Your task to perform on an android device: What is the news today? Image 0: 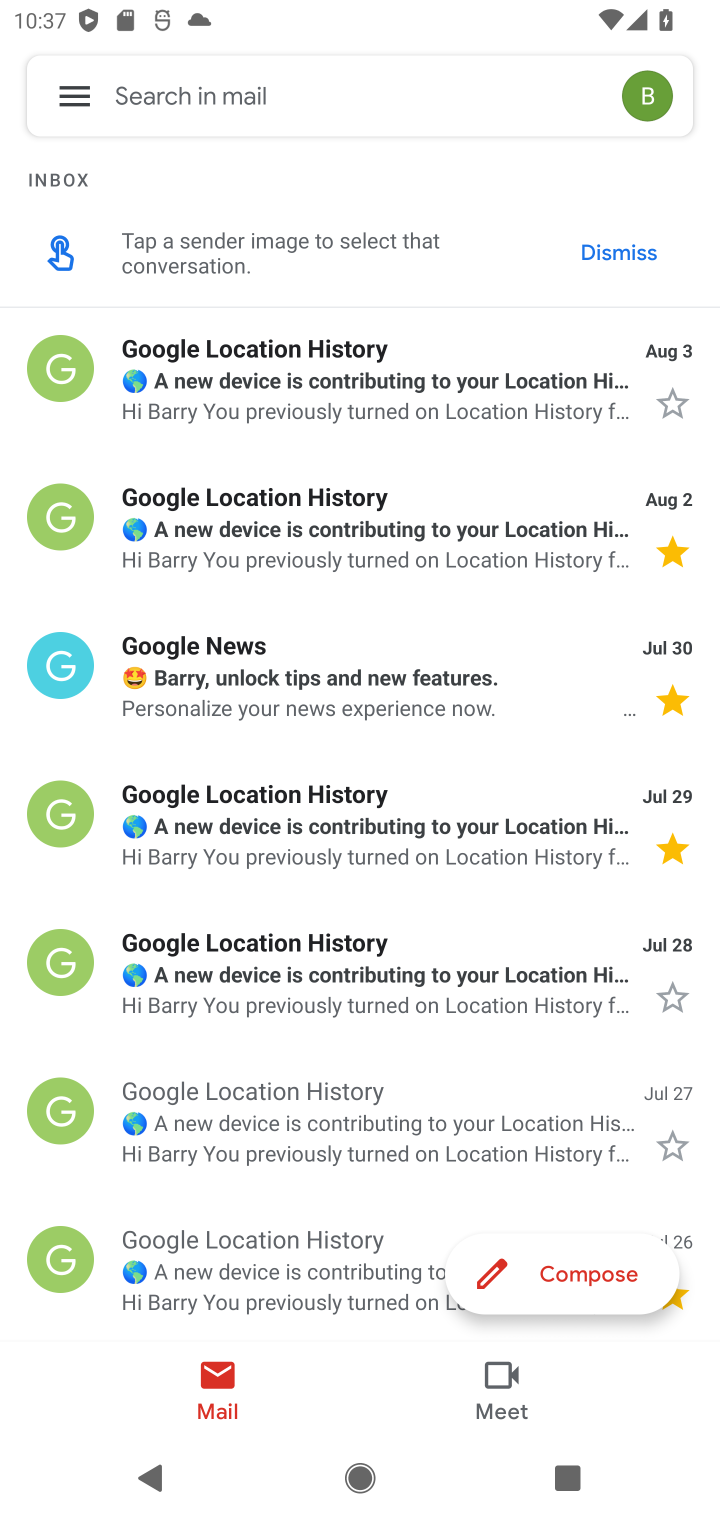
Step 0: press home button
Your task to perform on an android device: What is the news today? Image 1: 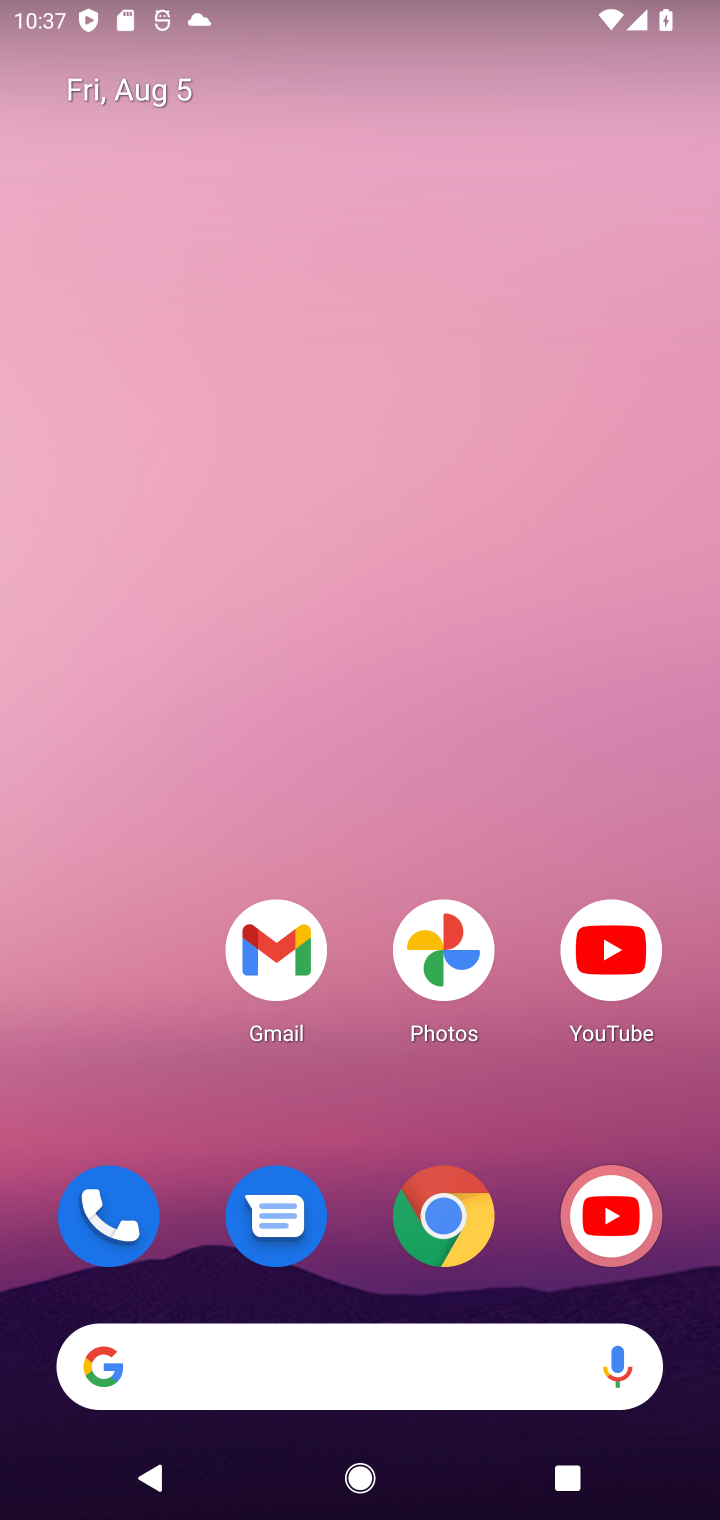
Step 1: drag from (370, 1359) to (329, 171)
Your task to perform on an android device: What is the news today? Image 2: 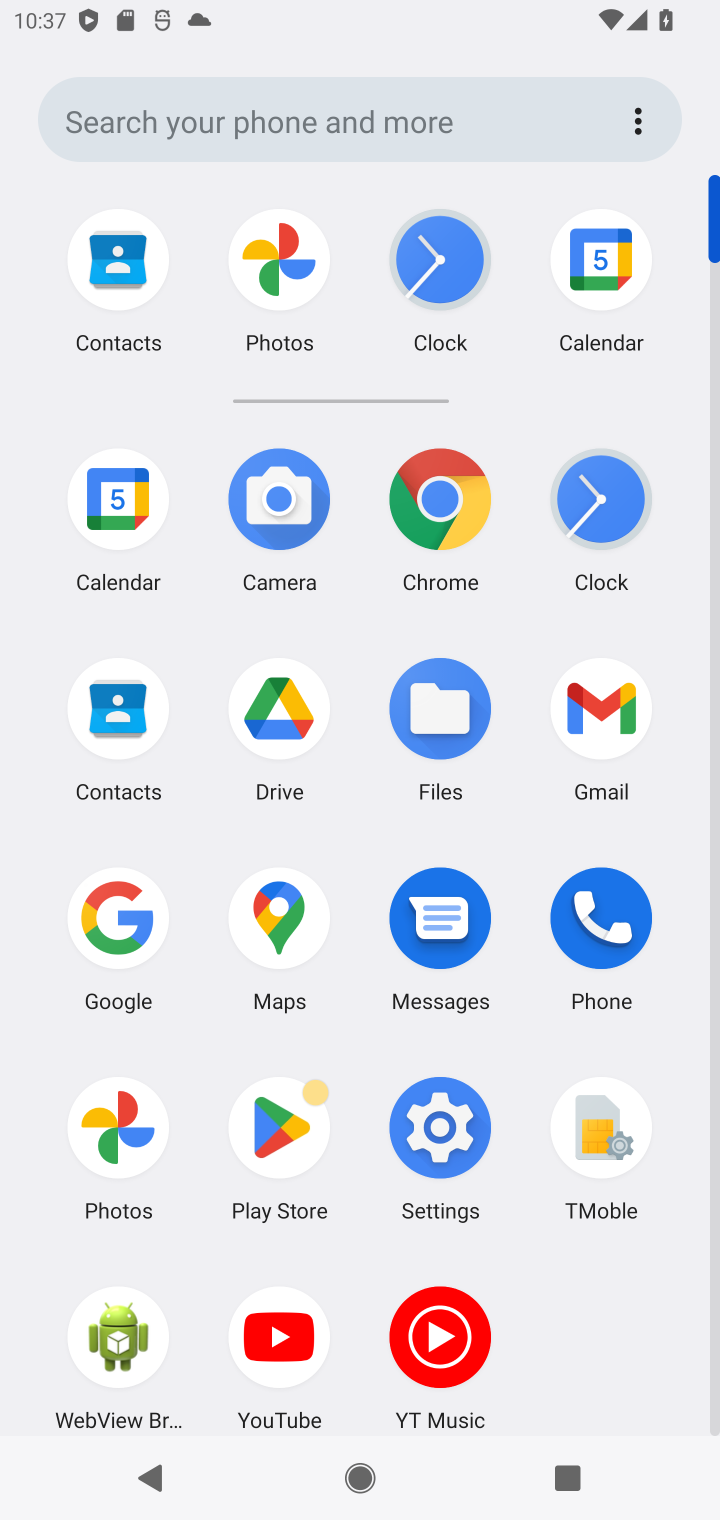
Step 2: click (436, 522)
Your task to perform on an android device: What is the news today? Image 3: 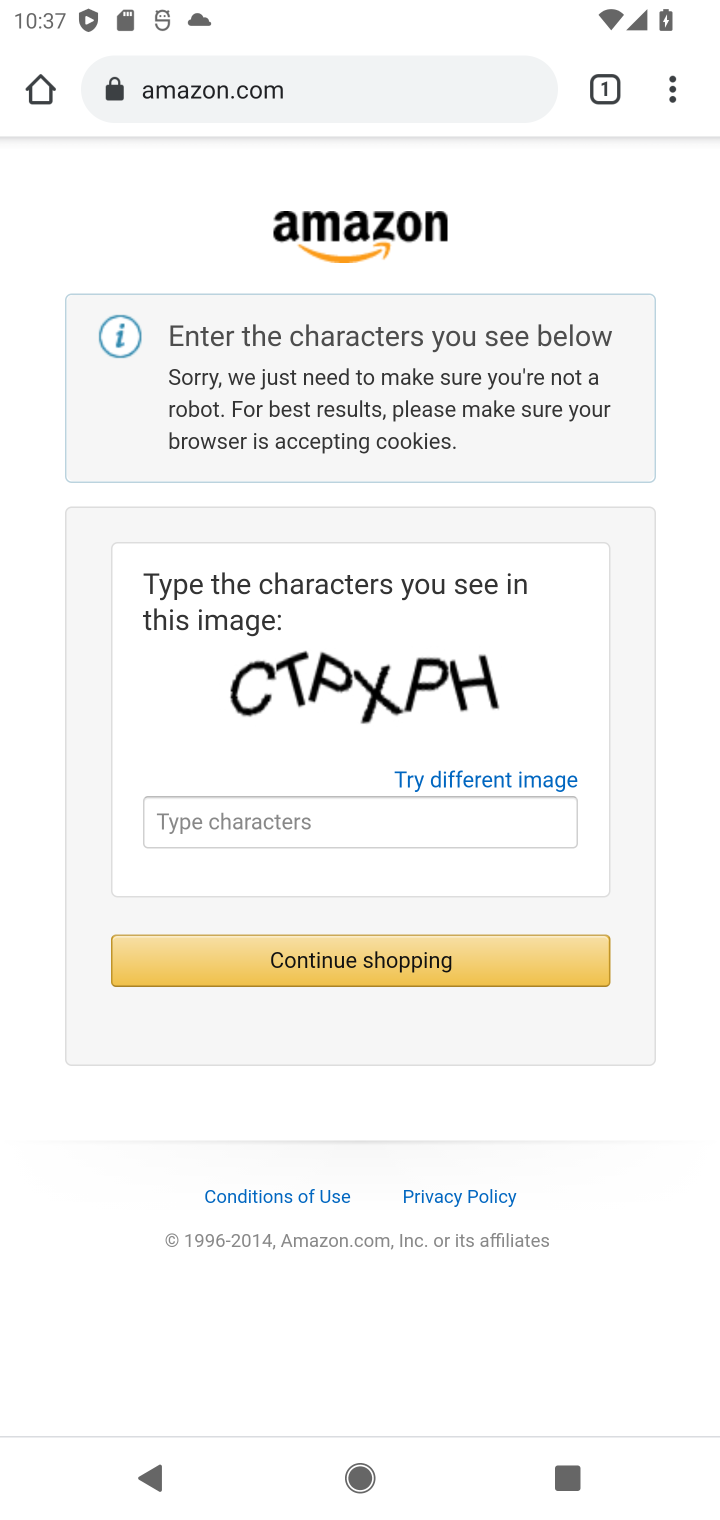
Step 3: click (479, 86)
Your task to perform on an android device: What is the news today? Image 4: 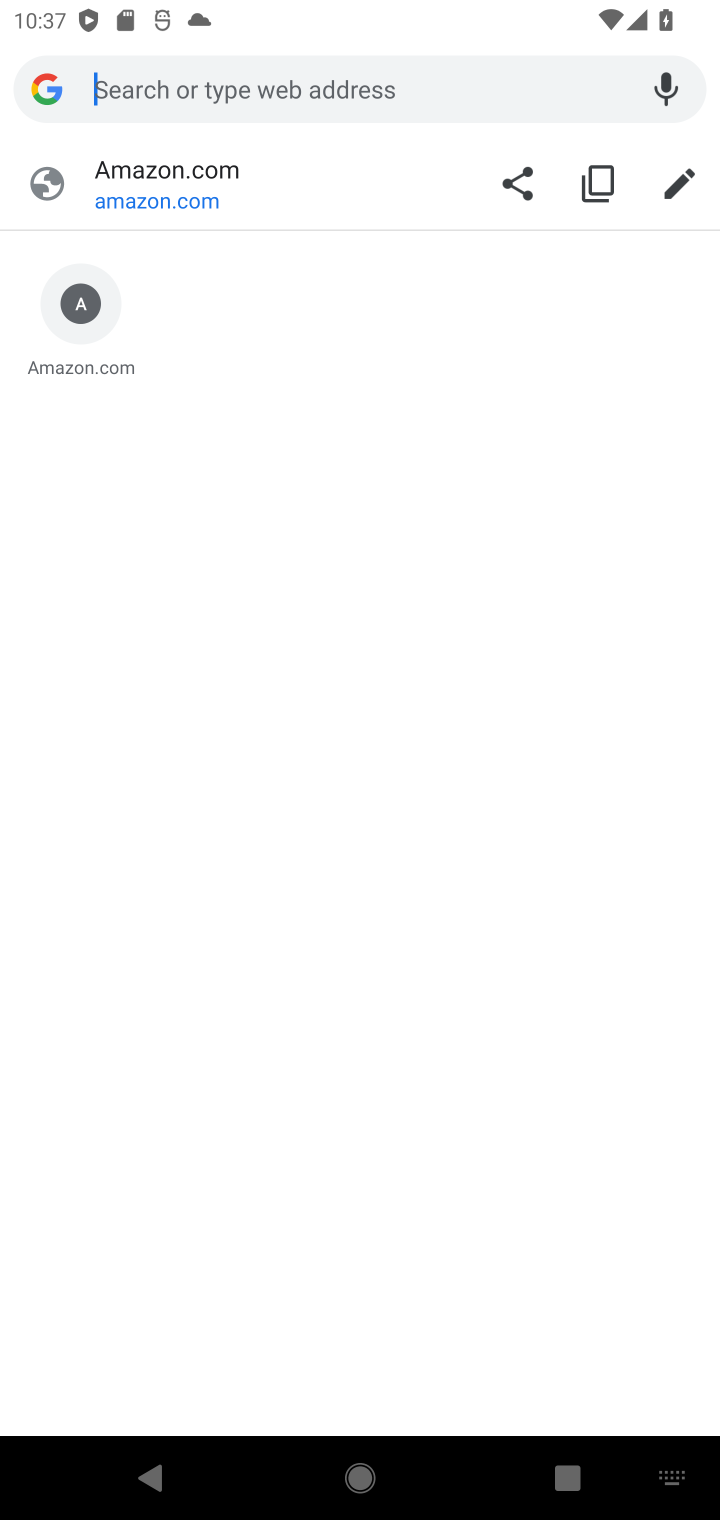
Step 4: type "what is the news today"
Your task to perform on an android device: What is the news today? Image 5: 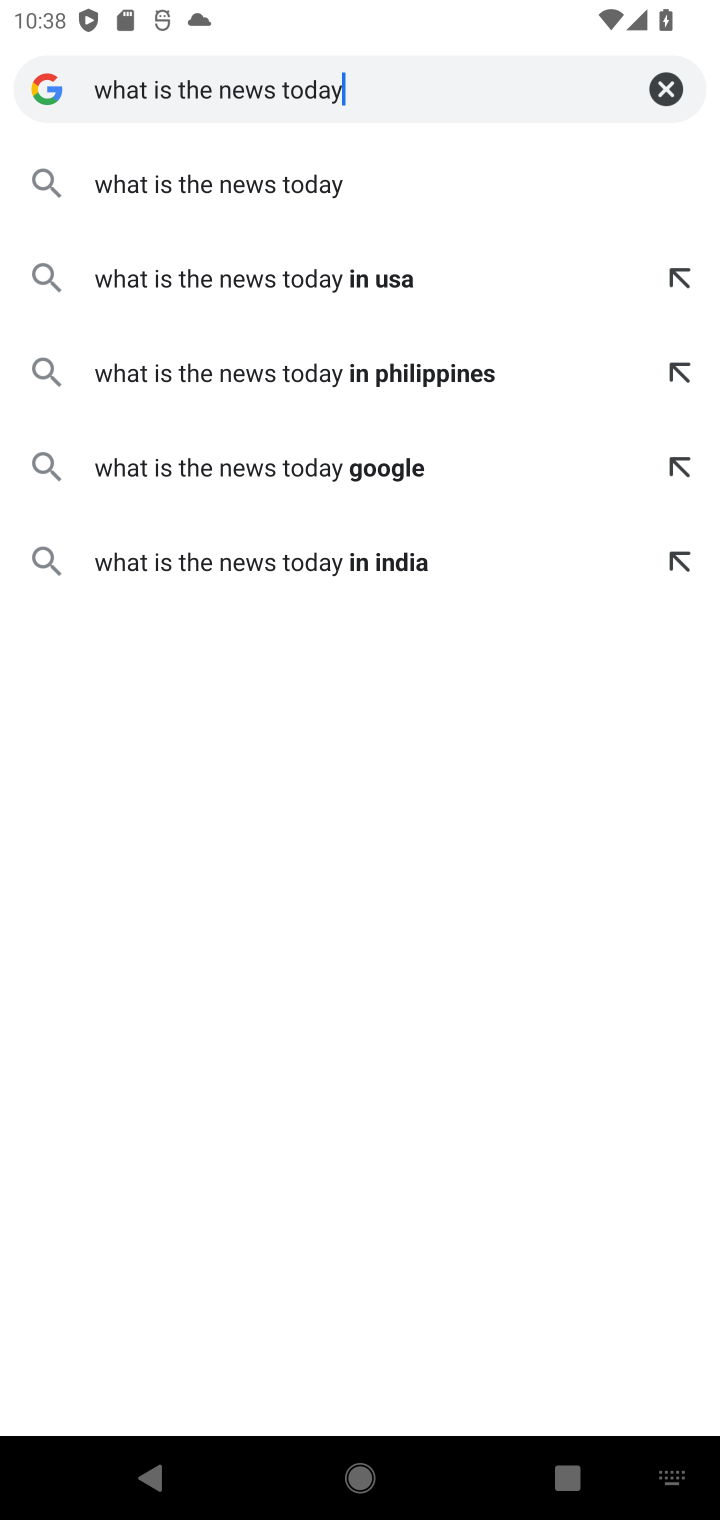
Step 5: click (339, 193)
Your task to perform on an android device: What is the news today? Image 6: 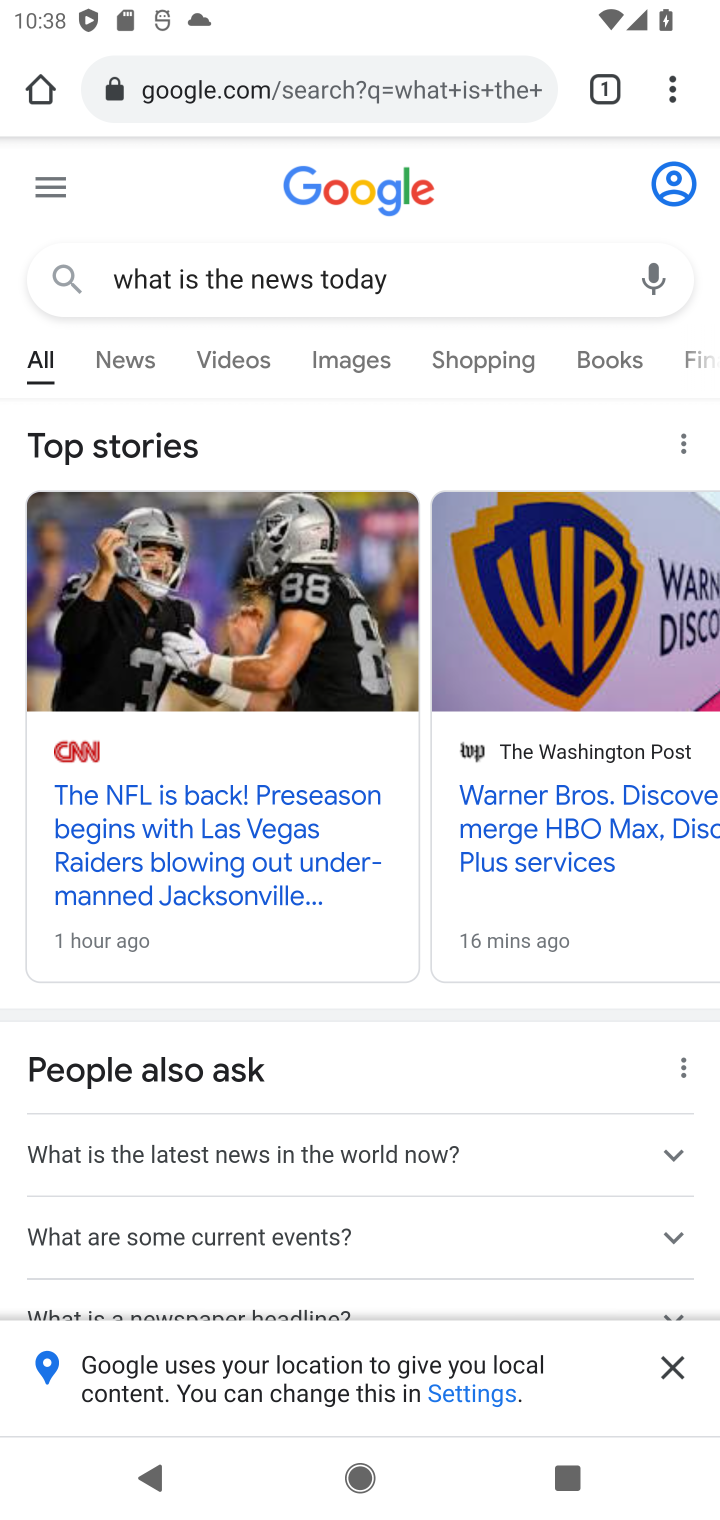
Step 6: task complete